Your task to perform on an android device: See recent photos Image 0: 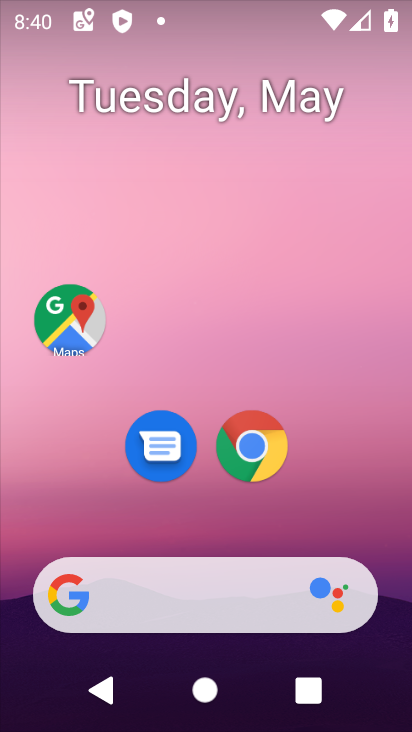
Step 0: drag from (366, 551) to (349, 50)
Your task to perform on an android device: See recent photos Image 1: 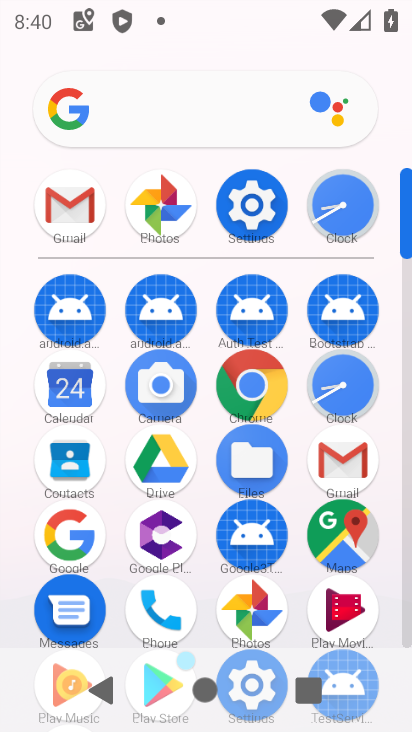
Step 1: click (160, 204)
Your task to perform on an android device: See recent photos Image 2: 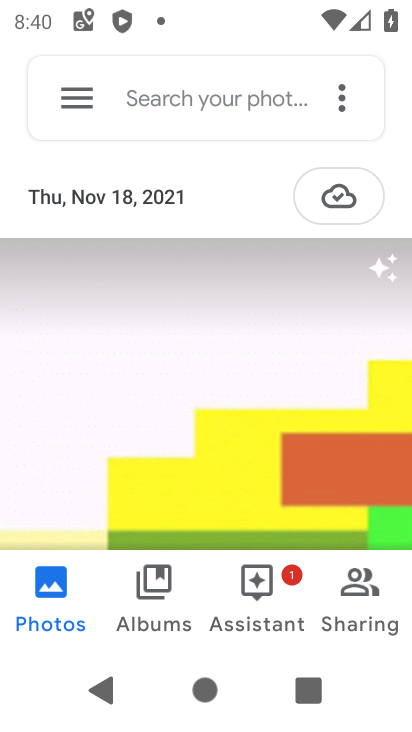
Step 2: task complete